Your task to perform on an android device: see creations saved in the google photos Image 0: 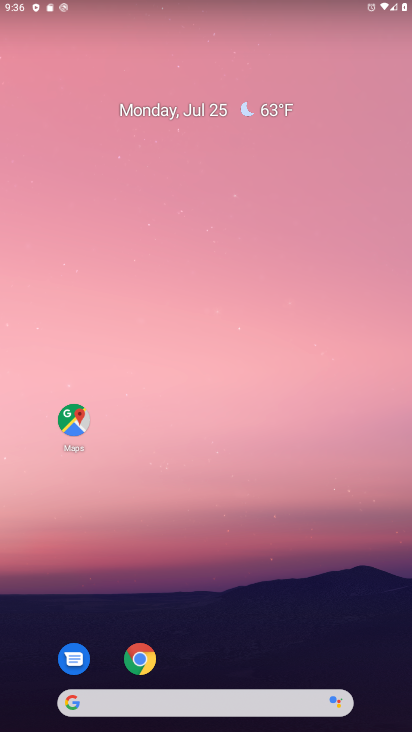
Step 0: drag from (197, 726) to (197, 212)
Your task to perform on an android device: see creations saved in the google photos Image 1: 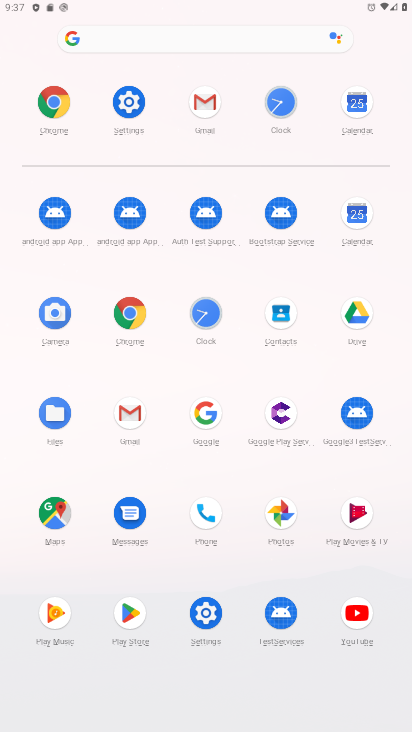
Step 1: click (279, 505)
Your task to perform on an android device: see creations saved in the google photos Image 2: 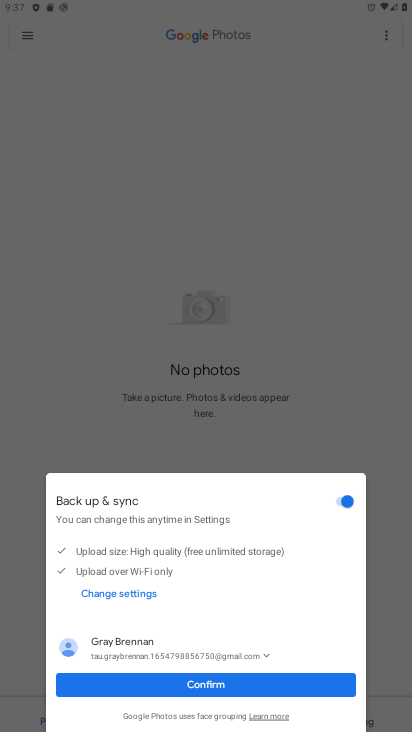
Step 2: click (193, 687)
Your task to perform on an android device: see creations saved in the google photos Image 3: 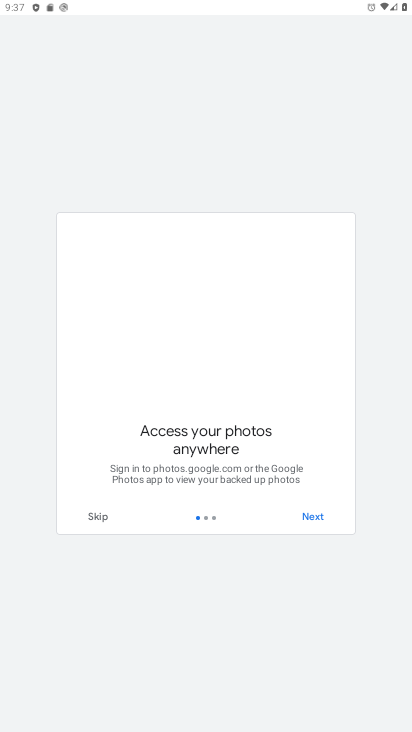
Step 3: click (317, 517)
Your task to perform on an android device: see creations saved in the google photos Image 4: 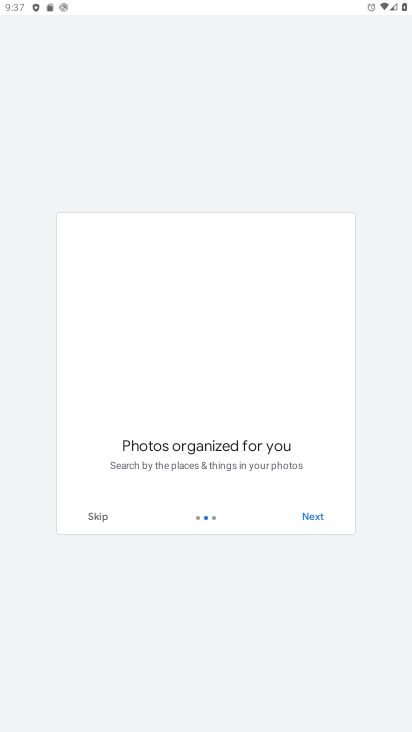
Step 4: click (318, 520)
Your task to perform on an android device: see creations saved in the google photos Image 5: 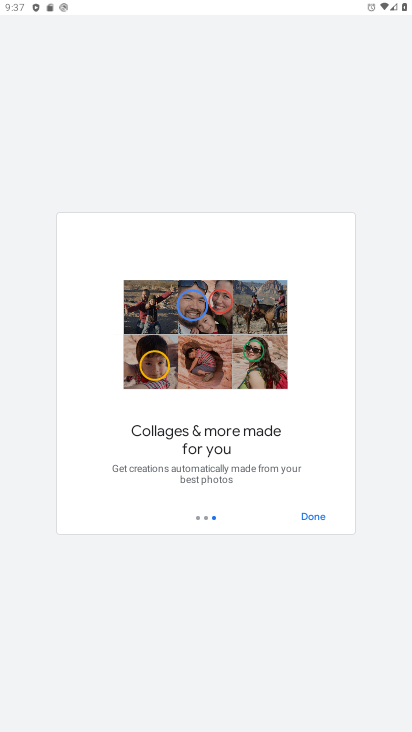
Step 5: click (319, 521)
Your task to perform on an android device: see creations saved in the google photos Image 6: 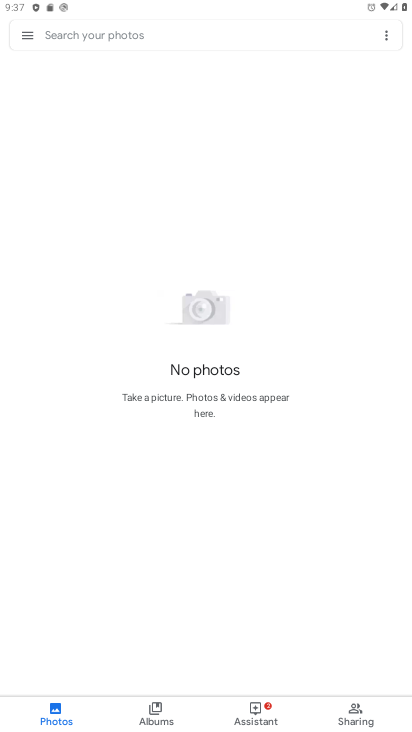
Step 6: click (319, 521)
Your task to perform on an android device: see creations saved in the google photos Image 7: 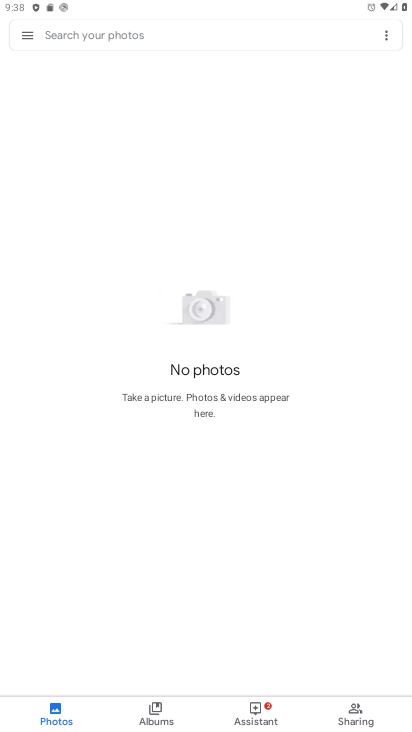
Step 7: click (136, 30)
Your task to perform on an android device: see creations saved in the google photos Image 8: 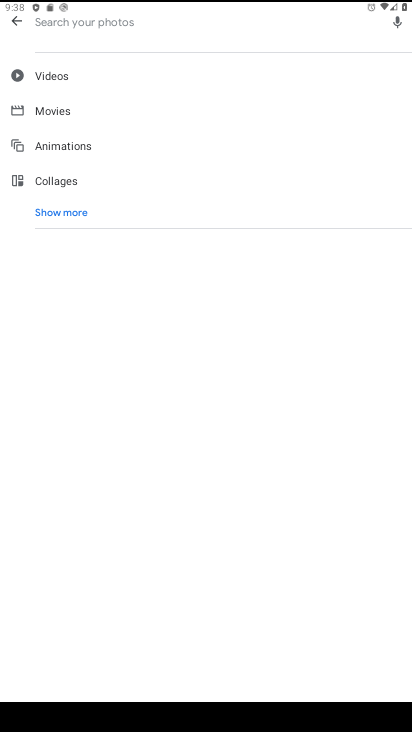
Step 8: click (47, 211)
Your task to perform on an android device: see creations saved in the google photos Image 9: 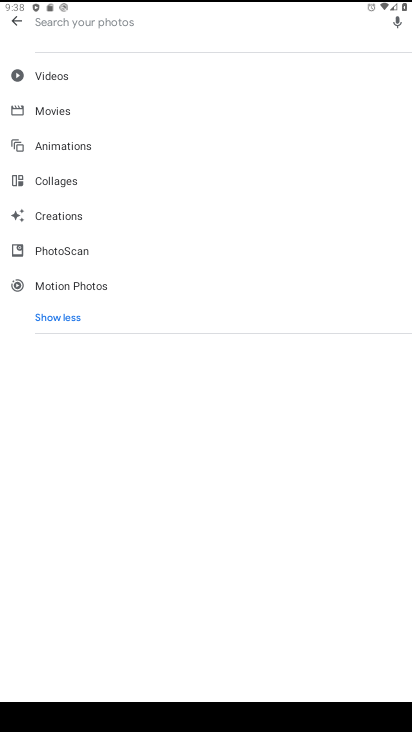
Step 9: click (60, 215)
Your task to perform on an android device: see creations saved in the google photos Image 10: 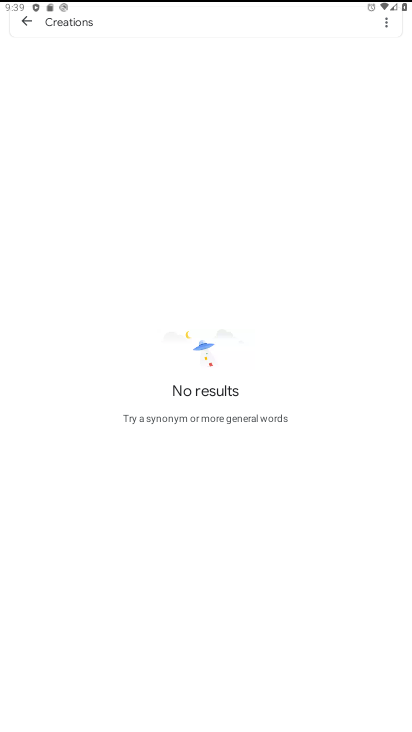
Step 10: task complete